Your task to perform on an android device: turn off location history Image 0: 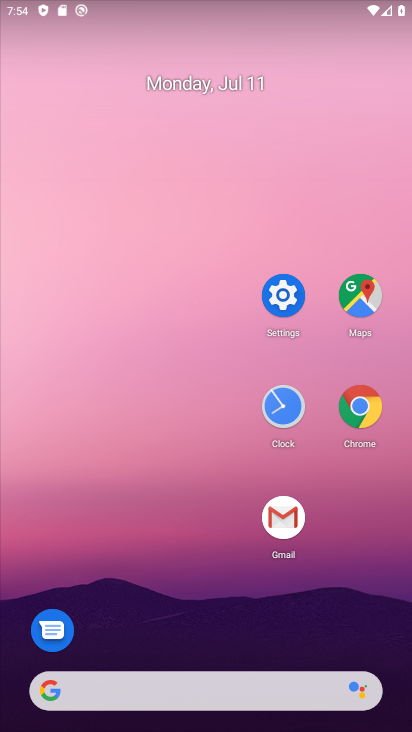
Step 0: drag from (308, 649) to (262, 252)
Your task to perform on an android device: turn off location history Image 1: 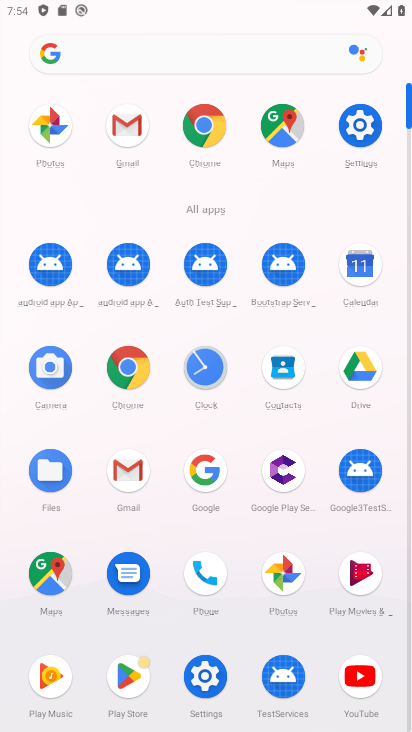
Step 1: click (360, 126)
Your task to perform on an android device: turn off location history Image 2: 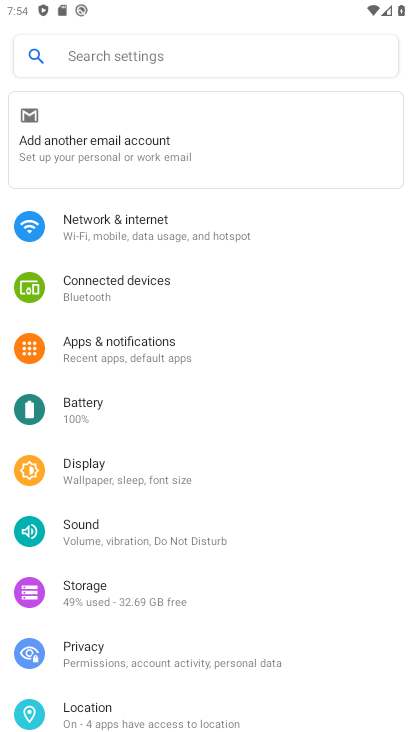
Step 2: drag from (160, 637) to (185, 301)
Your task to perform on an android device: turn off location history Image 3: 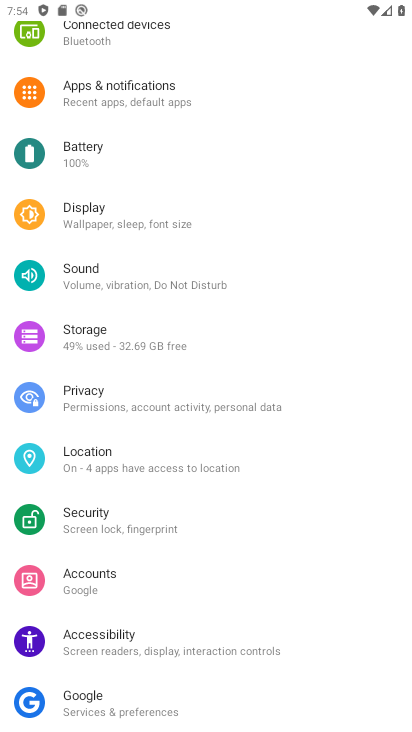
Step 3: click (202, 467)
Your task to perform on an android device: turn off location history Image 4: 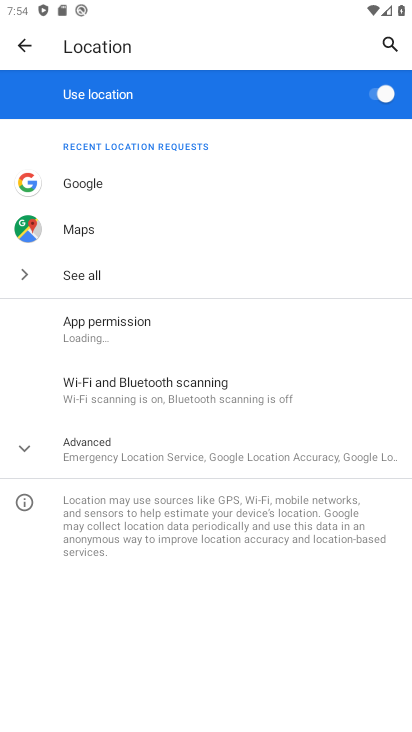
Step 4: click (202, 467)
Your task to perform on an android device: turn off location history Image 5: 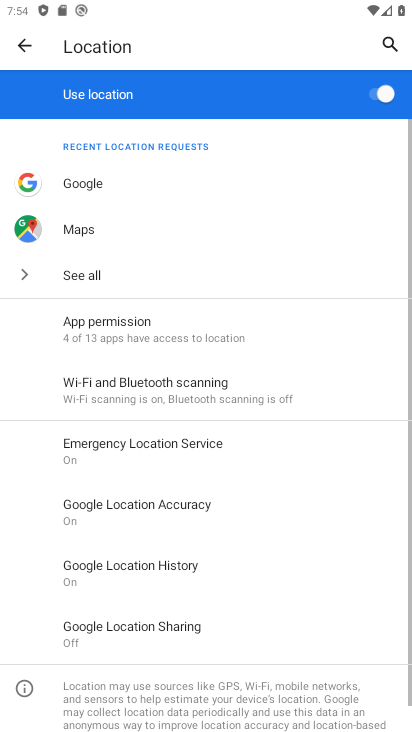
Step 5: click (201, 565)
Your task to perform on an android device: turn off location history Image 6: 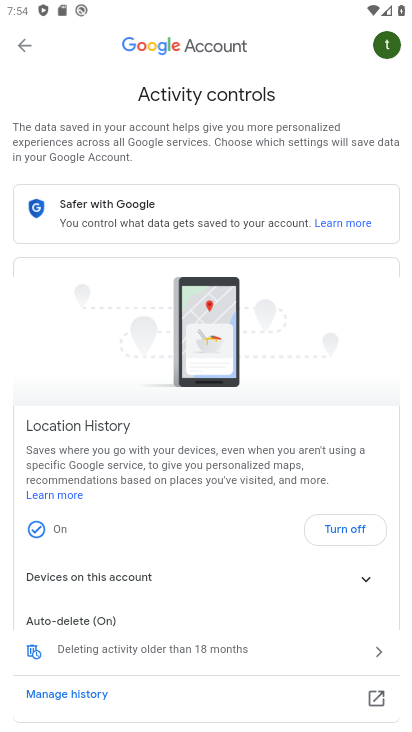
Step 6: click (370, 522)
Your task to perform on an android device: turn off location history Image 7: 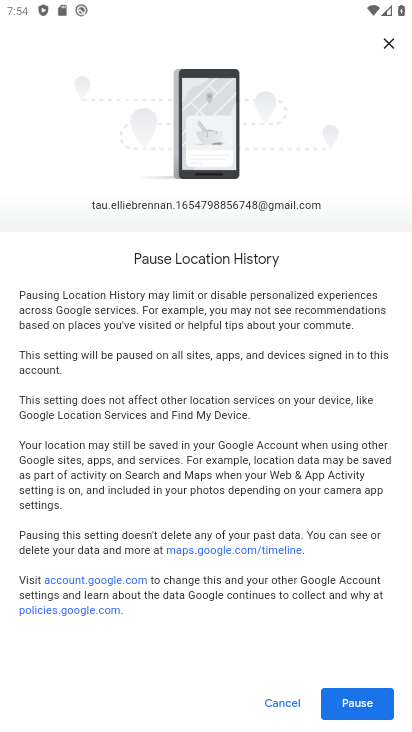
Step 7: click (369, 697)
Your task to perform on an android device: turn off location history Image 8: 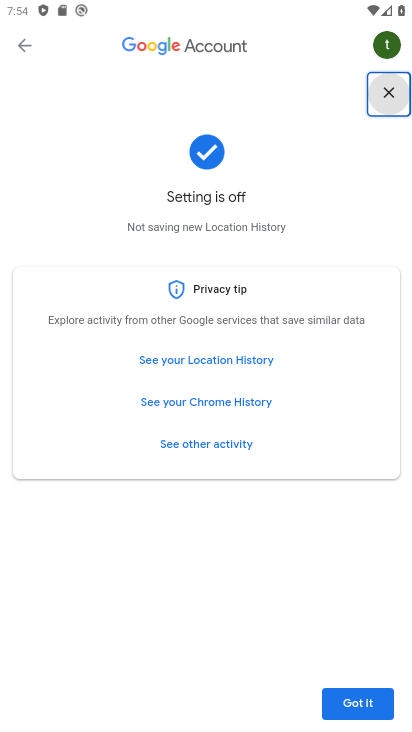
Step 8: click (369, 697)
Your task to perform on an android device: turn off location history Image 9: 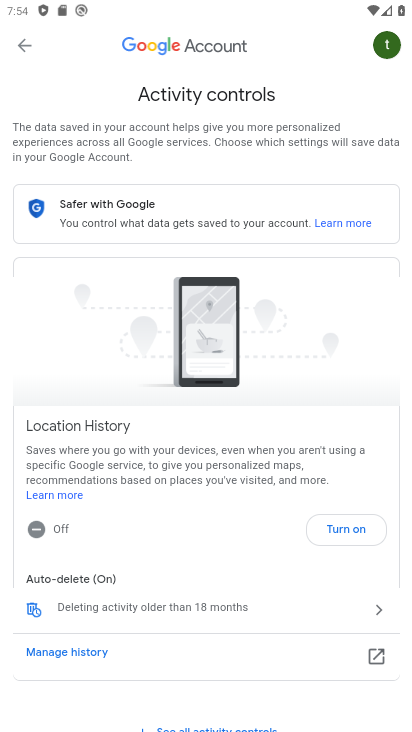
Step 9: task complete